Your task to perform on an android device: Open the calendar app, open the side menu, and click the "Day" option Image 0: 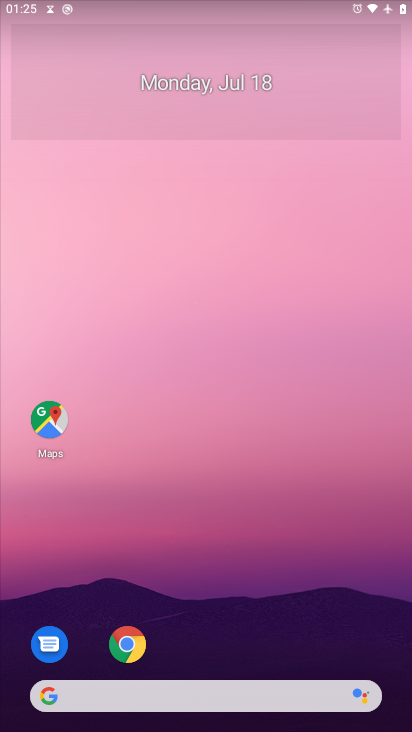
Step 0: press home button
Your task to perform on an android device: Open the calendar app, open the side menu, and click the "Day" option Image 1: 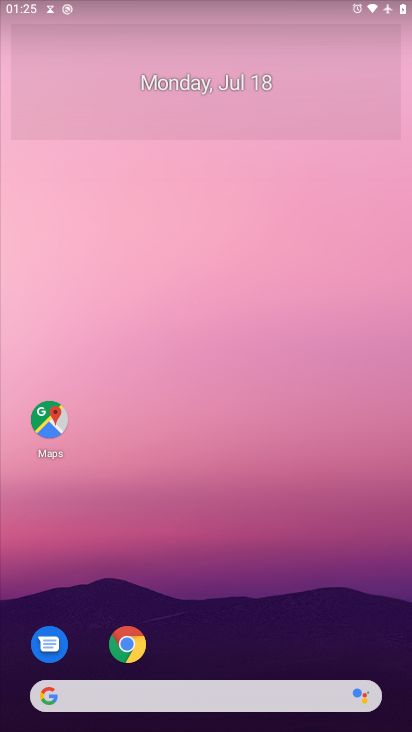
Step 1: drag from (238, 630) to (233, 30)
Your task to perform on an android device: Open the calendar app, open the side menu, and click the "Day" option Image 2: 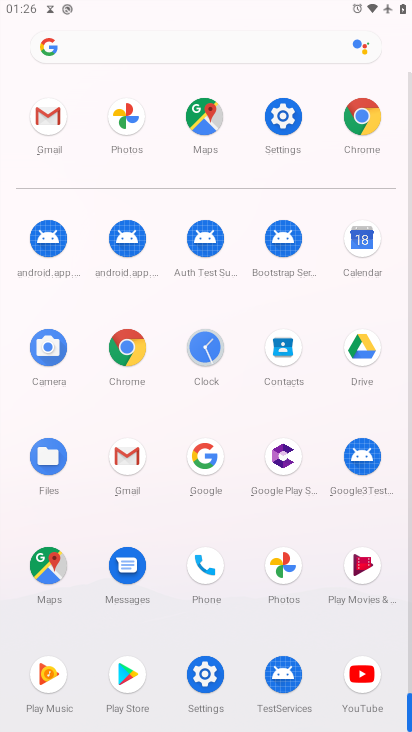
Step 2: click (358, 241)
Your task to perform on an android device: Open the calendar app, open the side menu, and click the "Day" option Image 3: 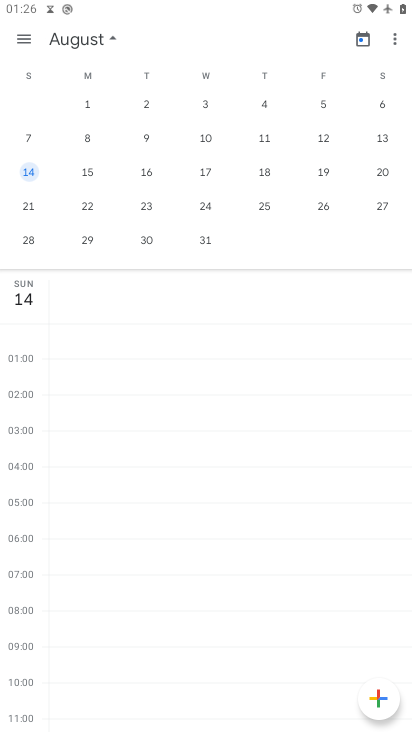
Step 3: click (25, 38)
Your task to perform on an android device: Open the calendar app, open the side menu, and click the "Day" option Image 4: 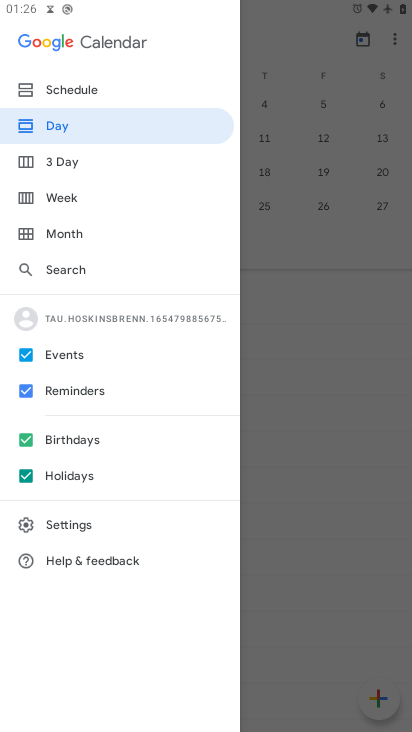
Step 4: click (62, 121)
Your task to perform on an android device: Open the calendar app, open the side menu, and click the "Day" option Image 5: 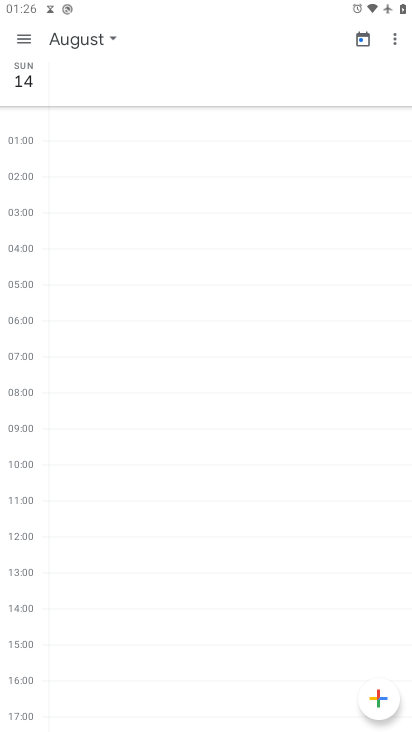
Step 5: task complete